Your task to perform on an android device: Is it going to rain today? Image 0: 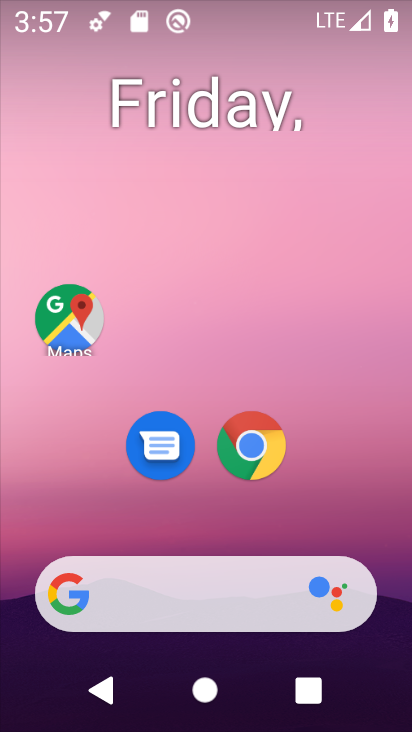
Step 0: click (269, 448)
Your task to perform on an android device: Is it going to rain today? Image 1: 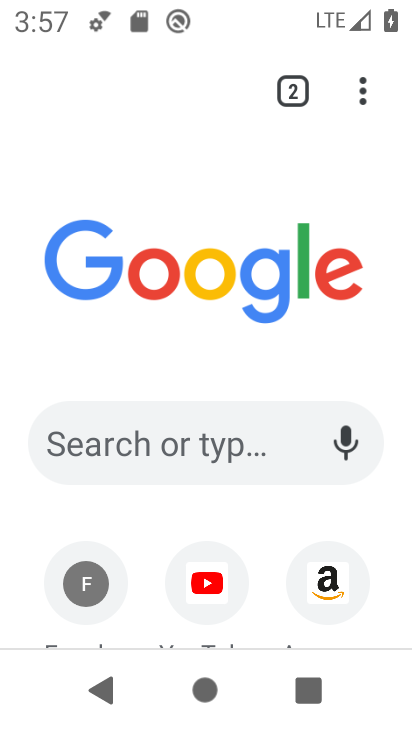
Step 1: click (230, 466)
Your task to perform on an android device: Is it going to rain today? Image 2: 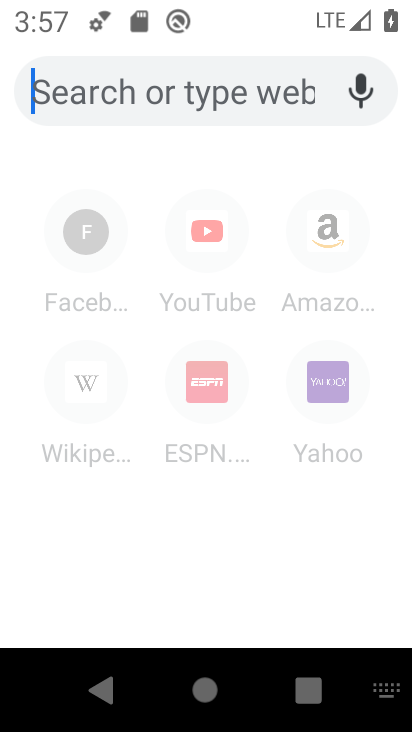
Step 2: type "Is it going to rain today?"
Your task to perform on an android device: Is it going to rain today? Image 3: 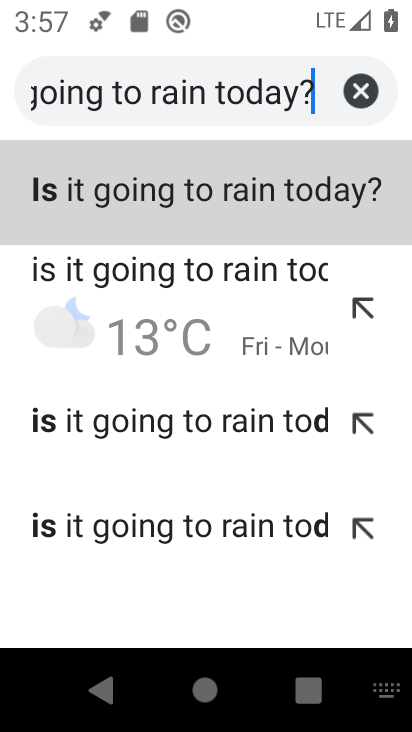
Step 3: click (241, 194)
Your task to perform on an android device: Is it going to rain today? Image 4: 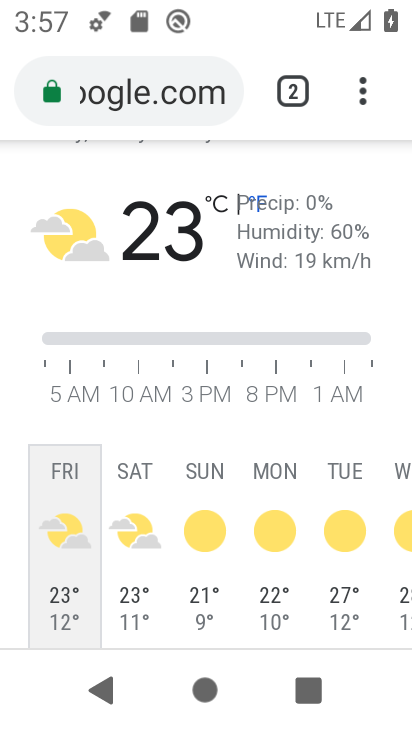
Step 4: task complete